Your task to perform on an android device: uninstall "eBay: The shopping marketplace" Image 0: 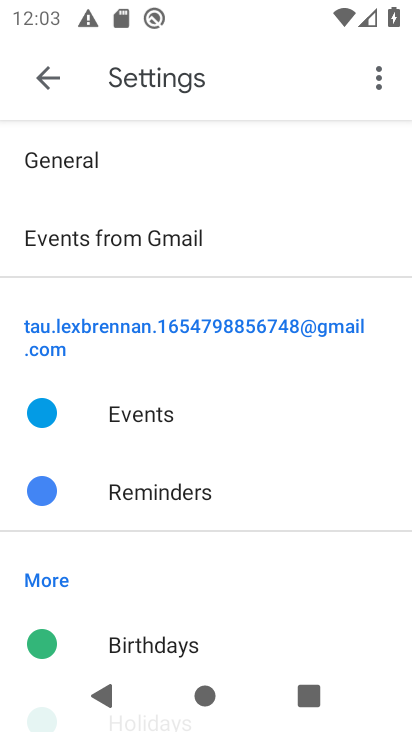
Step 0: press home button
Your task to perform on an android device: uninstall "eBay: The shopping marketplace" Image 1: 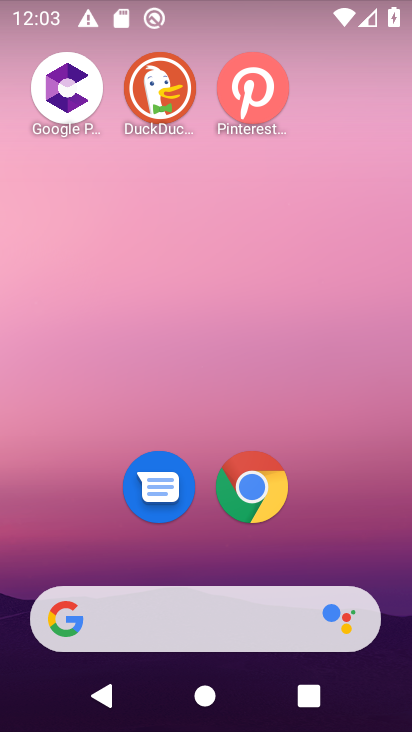
Step 1: drag from (206, 554) to (215, 58)
Your task to perform on an android device: uninstall "eBay: The shopping marketplace" Image 2: 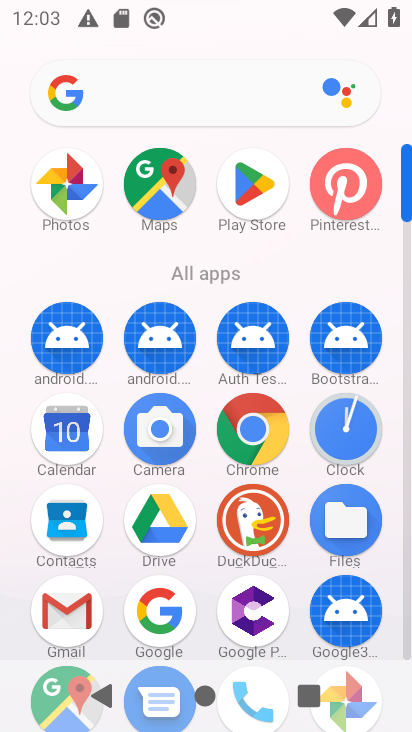
Step 2: click (258, 437)
Your task to perform on an android device: uninstall "eBay: The shopping marketplace" Image 3: 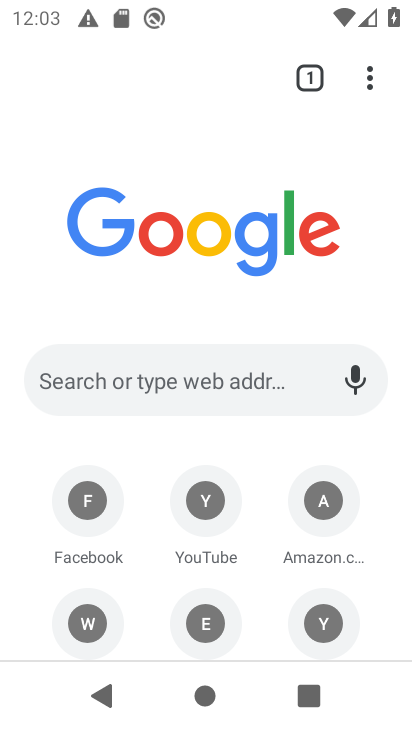
Step 3: press home button
Your task to perform on an android device: uninstall "eBay: The shopping marketplace" Image 4: 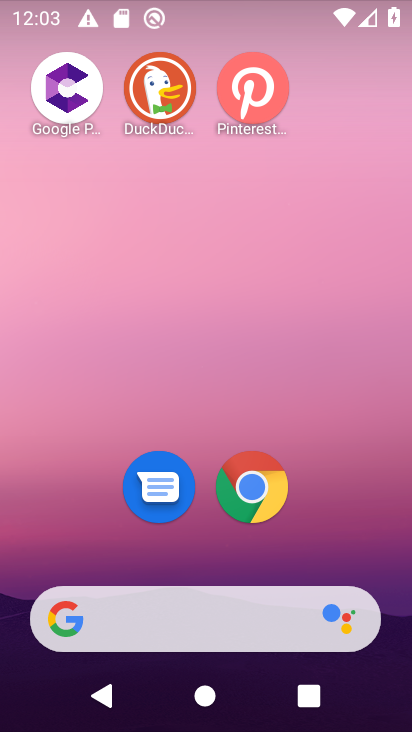
Step 4: drag from (169, 543) to (150, 29)
Your task to perform on an android device: uninstall "eBay: The shopping marketplace" Image 5: 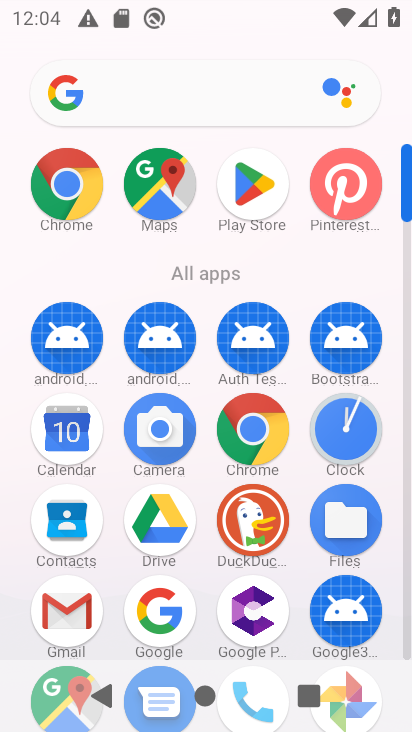
Step 5: click (257, 191)
Your task to perform on an android device: uninstall "eBay: The shopping marketplace" Image 6: 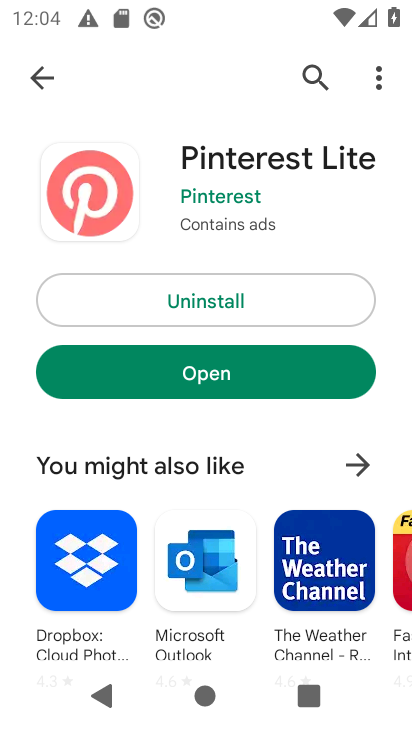
Step 6: click (50, 77)
Your task to perform on an android device: uninstall "eBay: The shopping marketplace" Image 7: 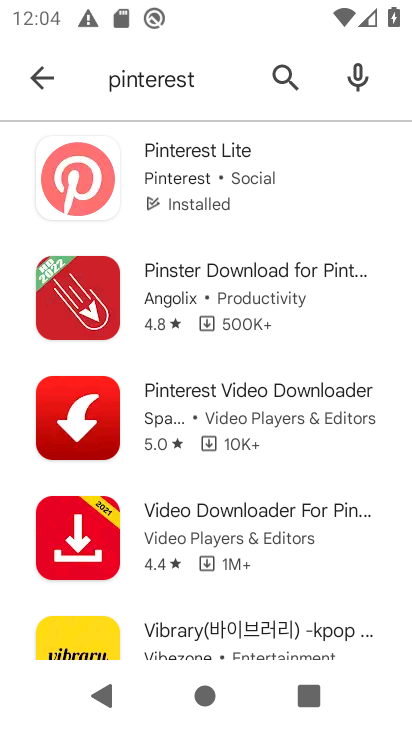
Step 7: click (170, 87)
Your task to perform on an android device: uninstall "eBay: The shopping marketplace" Image 8: 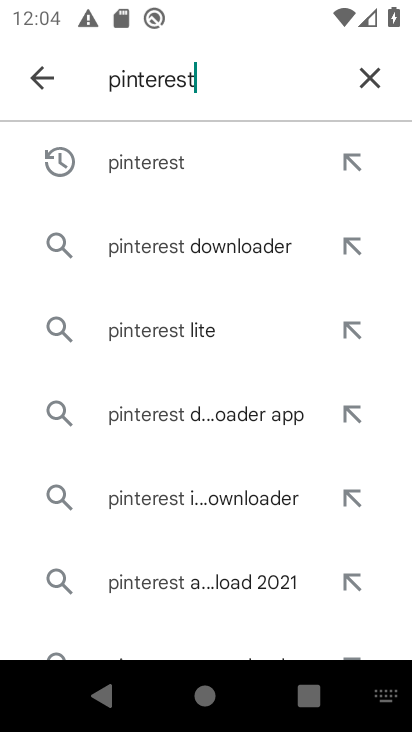
Step 8: click (373, 85)
Your task to perform on an android device: uninstall "eBay: The shopping marketplace" Image 9: 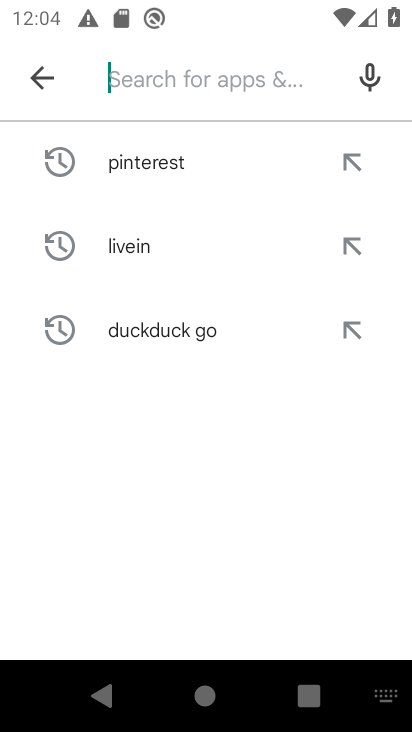
Step 9: type "eBay"
Your task to perform on an android device: uninstall "eBay: The shopping marketplace" Image 10: 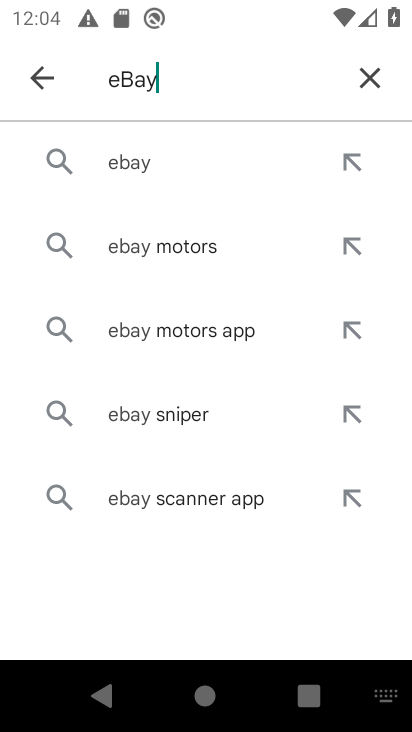
Step 10: click (114, 168)
Your task to perform on an android device: uninstall "eBay: The shopping marketplace" Image 11: 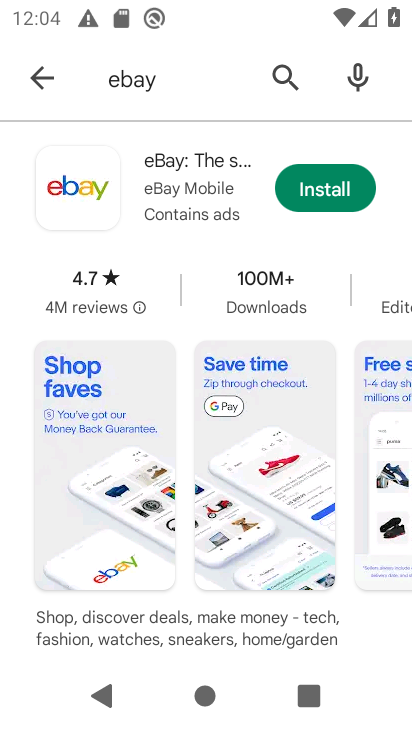
Step 11: task complete